Your task to perform on an android device: Check the news Image 0: 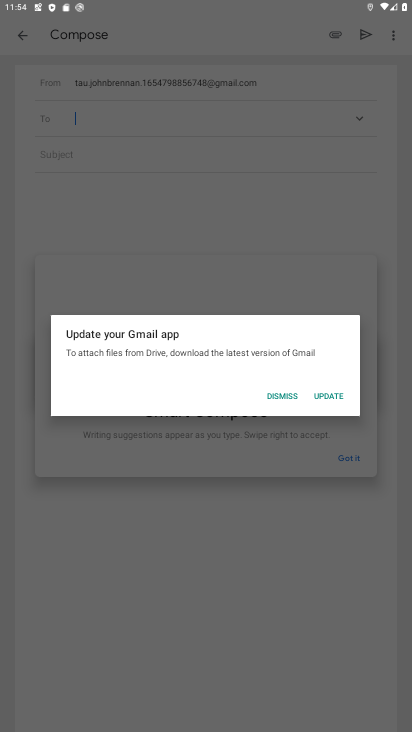
Step 0: press home button
Your task to perform on an android device: Check the news Image 1: 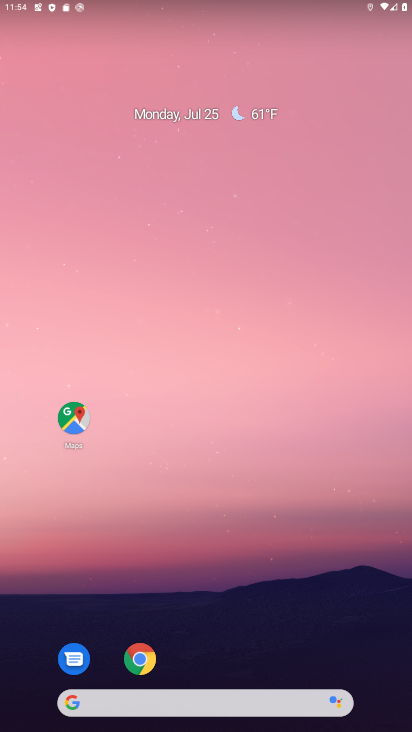
Step 1: task complete